Your task to perform on an android device: turn off smart reply in the gmail app Image 0: 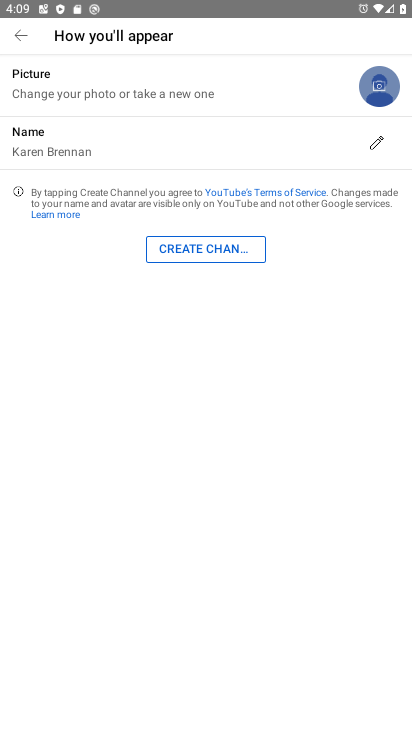
Step 0: press home button
Your task to perform on an android device: turn off smart reply in the gmail app Image 1: 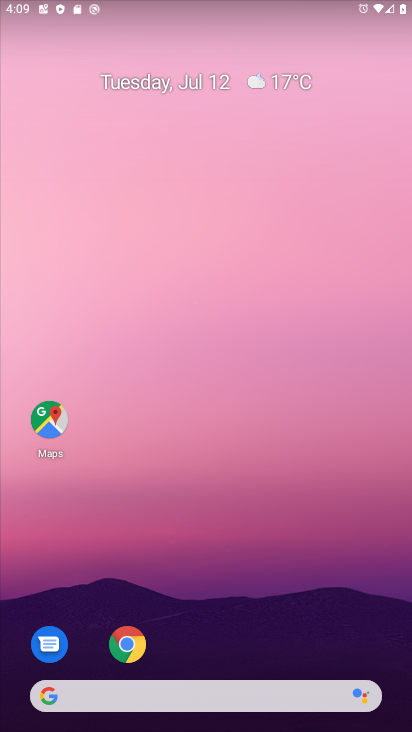
Step 1: drag from (269, 641) to (270, 79)
Your task to perform on an android device: turn off smart reply in the gmail app Image 2: 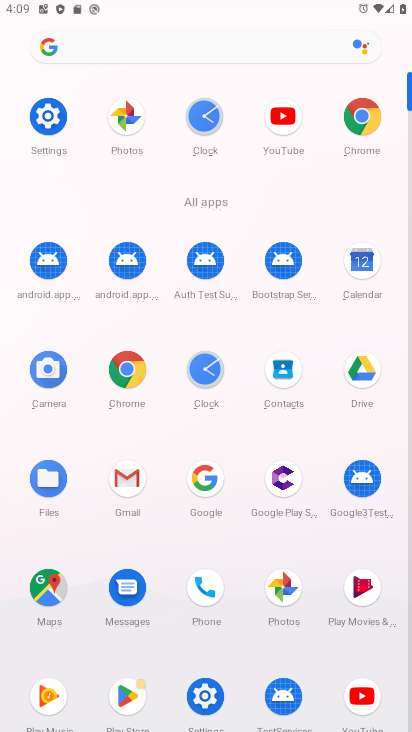
Step 2: click (129, 477)
Your task to perform on an android device: turn off smart reply in the gmail app Image 3: 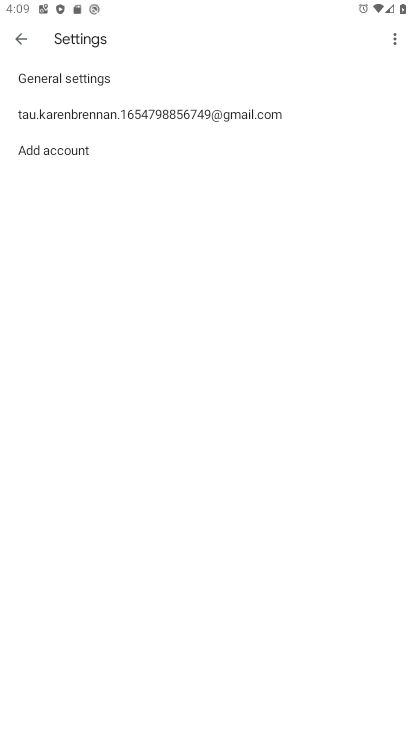
Step 3: click (245, 106)
Your task to perform on an android device: turn off smart reply in the gmail app Image 4: 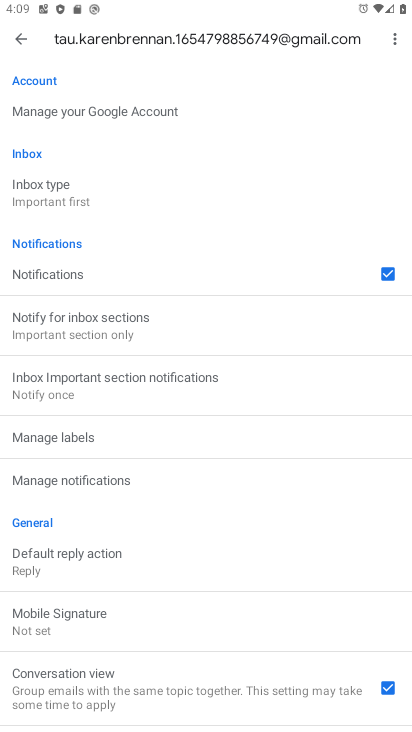
Step 4: drag from (304, 654) to (255, 152)
Your task to perform on an android device: turn off smart reply in the gmail app Image 5: 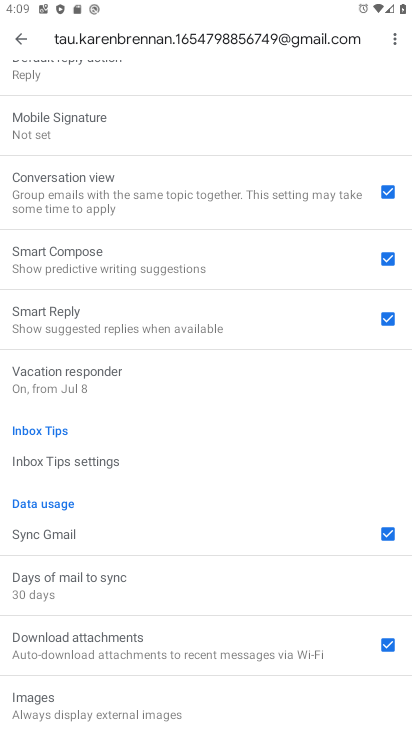
Step 5: click (388, 322)
Your task to perform on an android device: turn off smart reply in the gmail app Image 6: 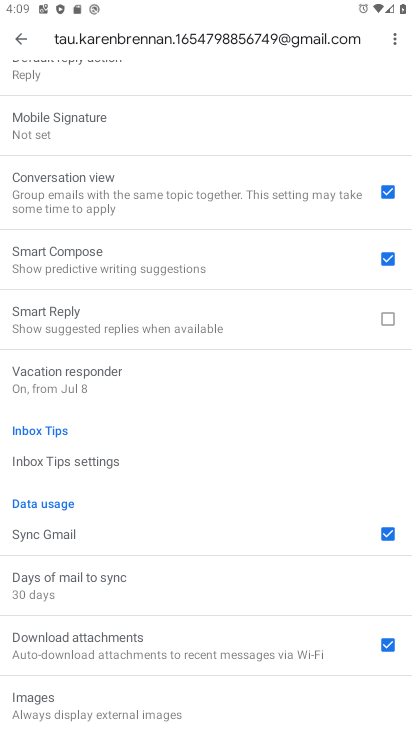
Step 6: task complete